Your task to perform on an android device: find snoozed emails in the gmail app Image 0: 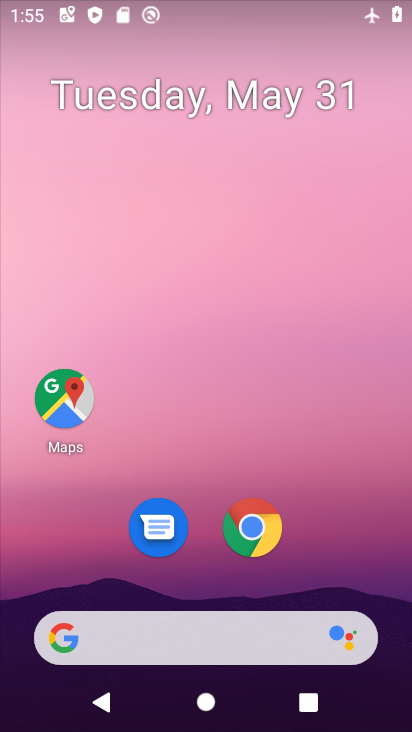
Step 0: drag from (353, 510) to (324, 0)
Your task to perform on an android device: find snoozed emails in the gmail app Image 1: 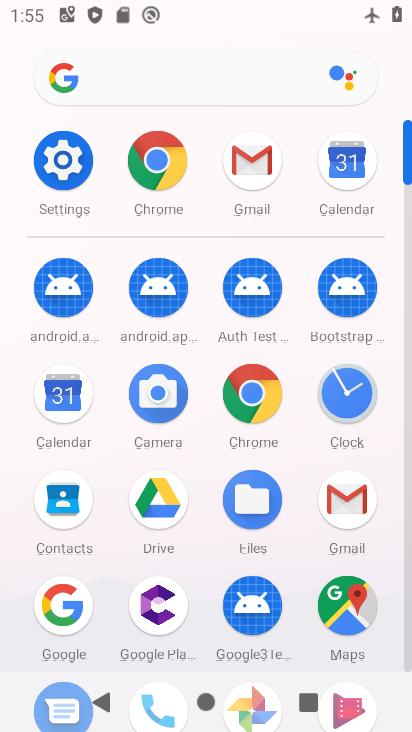
Step 1: click (262, 173)
Your task to perform on an android device: find snoozed emails in the gmail app Image 2: 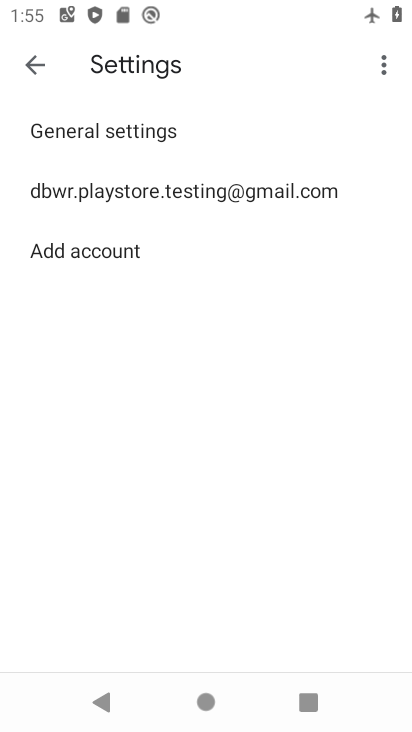
Step 2: click (30, 68)
Your task to perform on an android device: find snoozed emails in the gmail app Image 3: 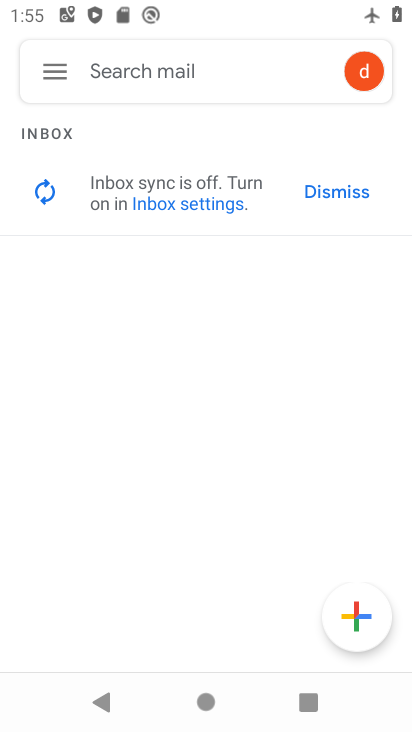
Step 3: click (52, 77)
Your task to perform on an android device: find snoozed emails in the gmail app Image 4: 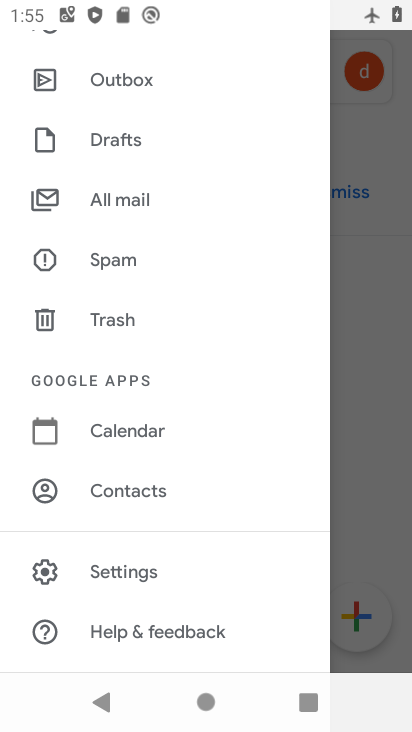
Step 4: drag from (73, 112) to (84, 438)
Your task to perform on an android device: find snoozed emails in the gmail app Image 5: 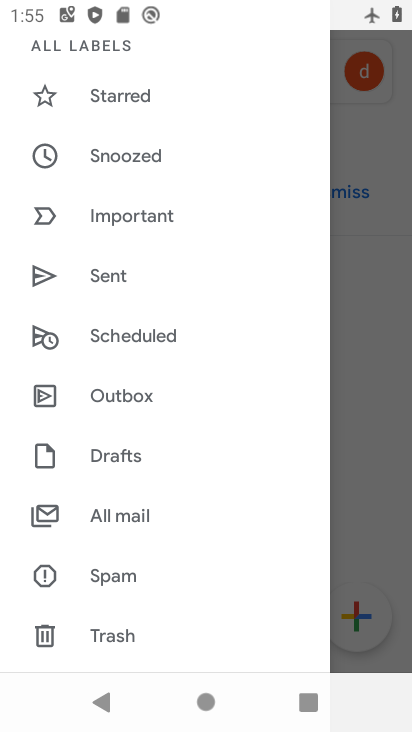
Step 5: click (99, 156)
Your task to perform on an android device: find snoozed emails in the gmail app Image 6: 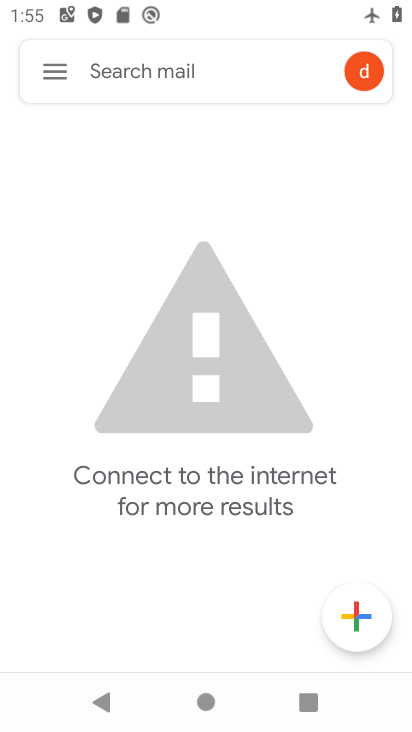
Step 6: task complete